Your task to perform on an android device: turn off location history Image 0: 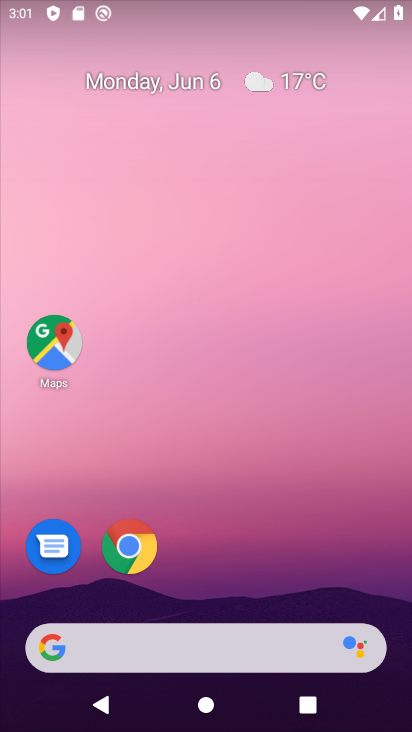
Step 0: drag from (296, 588) to (358, 0)
Your task to perform on an android device: turn off location history Image 1: 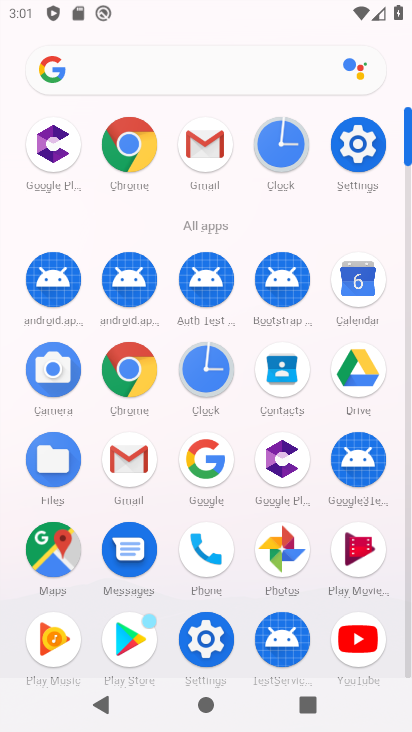
Step 1: click (359, 145)
Your task to perform on an android device: turn off location history Image 2: 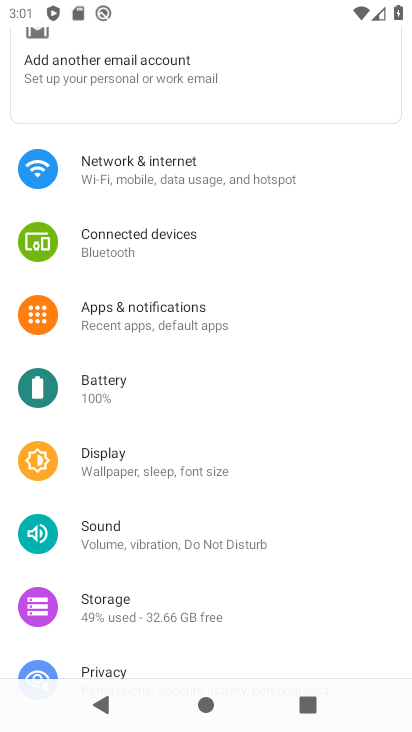
Step 2: drag from (297, 147) to (254, 650)
Your task to perform on an android device: turn off location history Image 3: 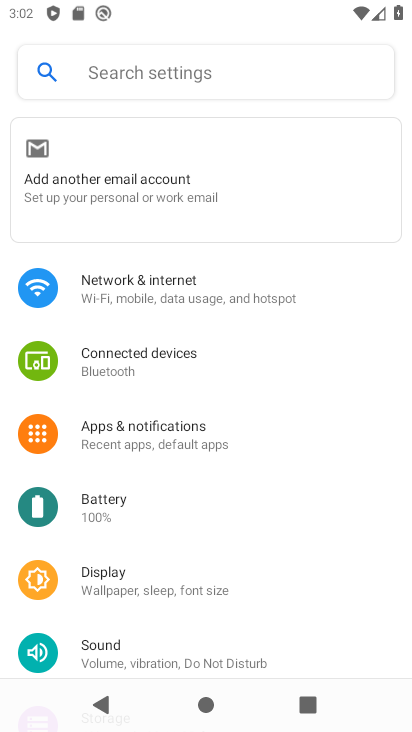
Step 3: drag from (207, 581) to (270, 153)
Your task to perform on an android device: turn off location history Image 4: 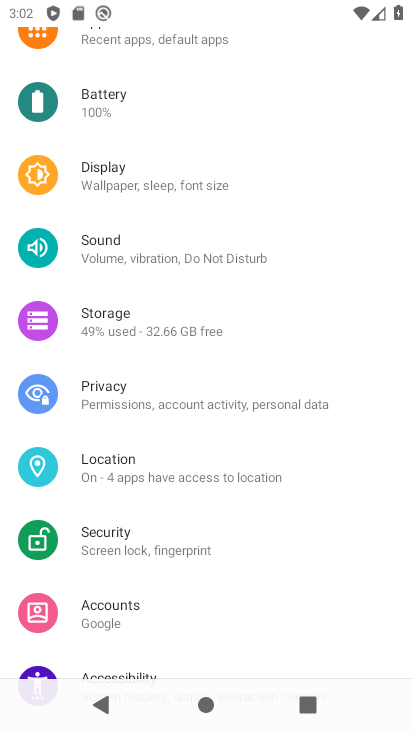
Step 4: click (127, 469)
Your task to perform on an android device: turn off location history Image 5: 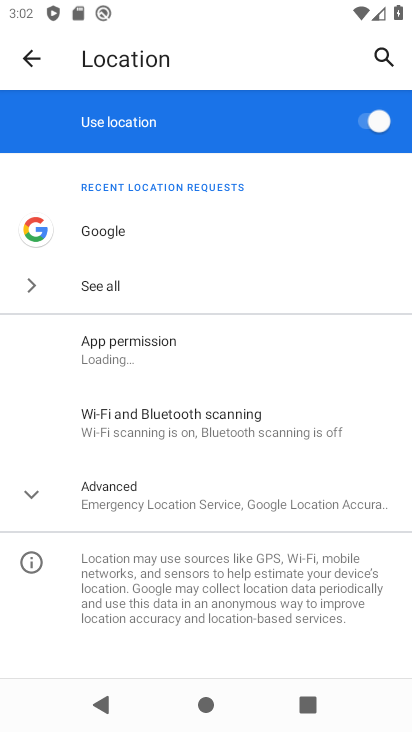
Step 5: click (372, 113)
Your task to perform on an android device: turn off location history Image 6: 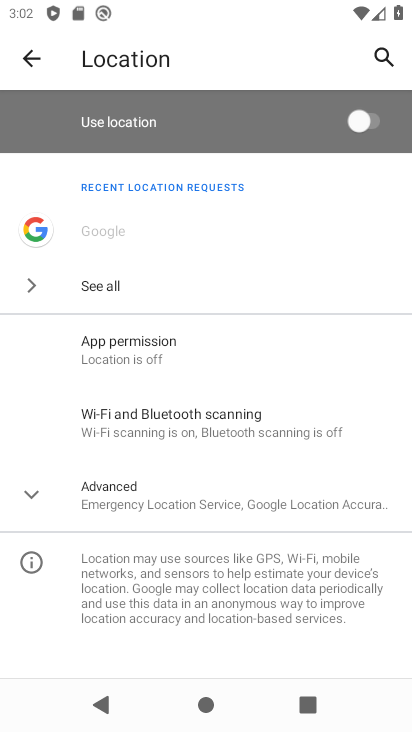
Step 6: task complete